Your task to perform on an android device: delete the emails in spam in the gmail app Image 0: 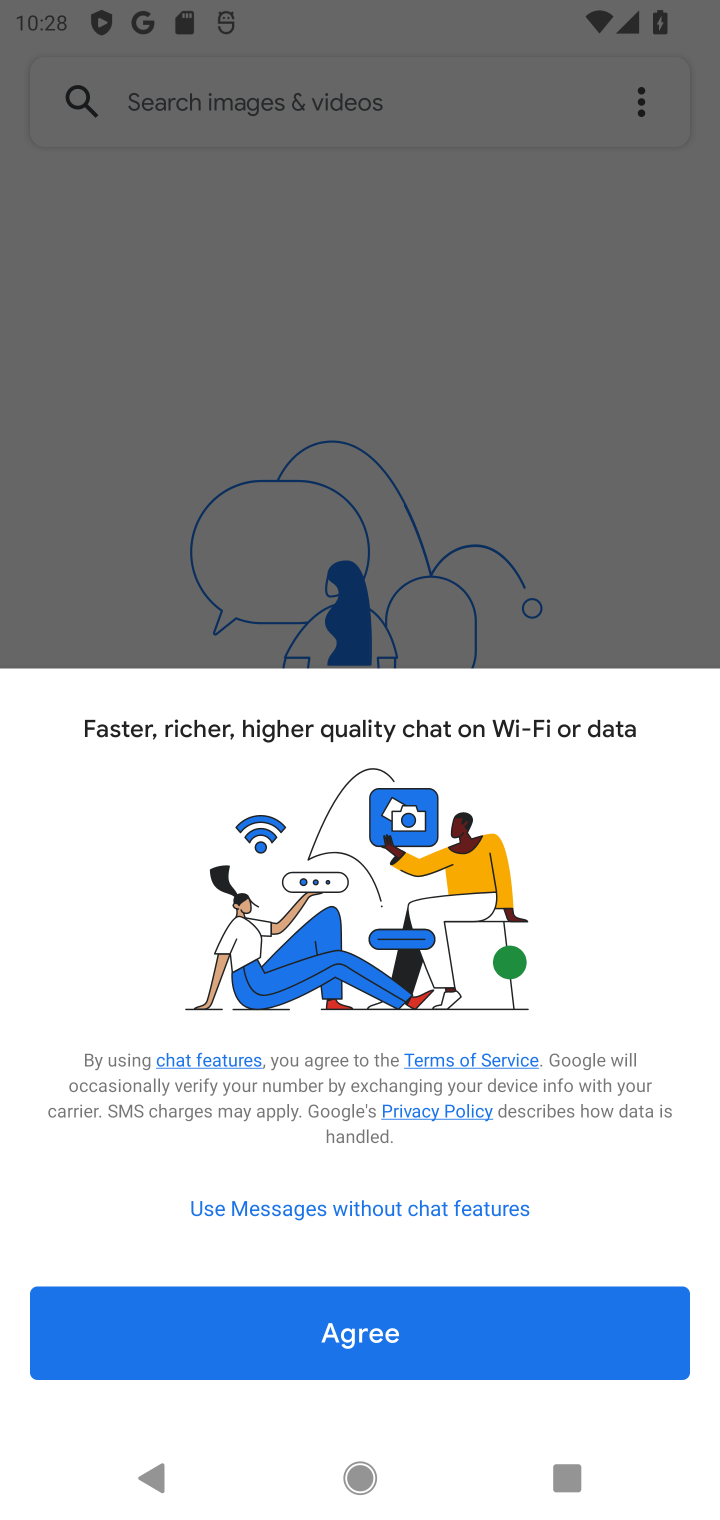
Step 0: press home button
Your task to perform on an android device: delete the emails in spam in the gmail app Image 1: 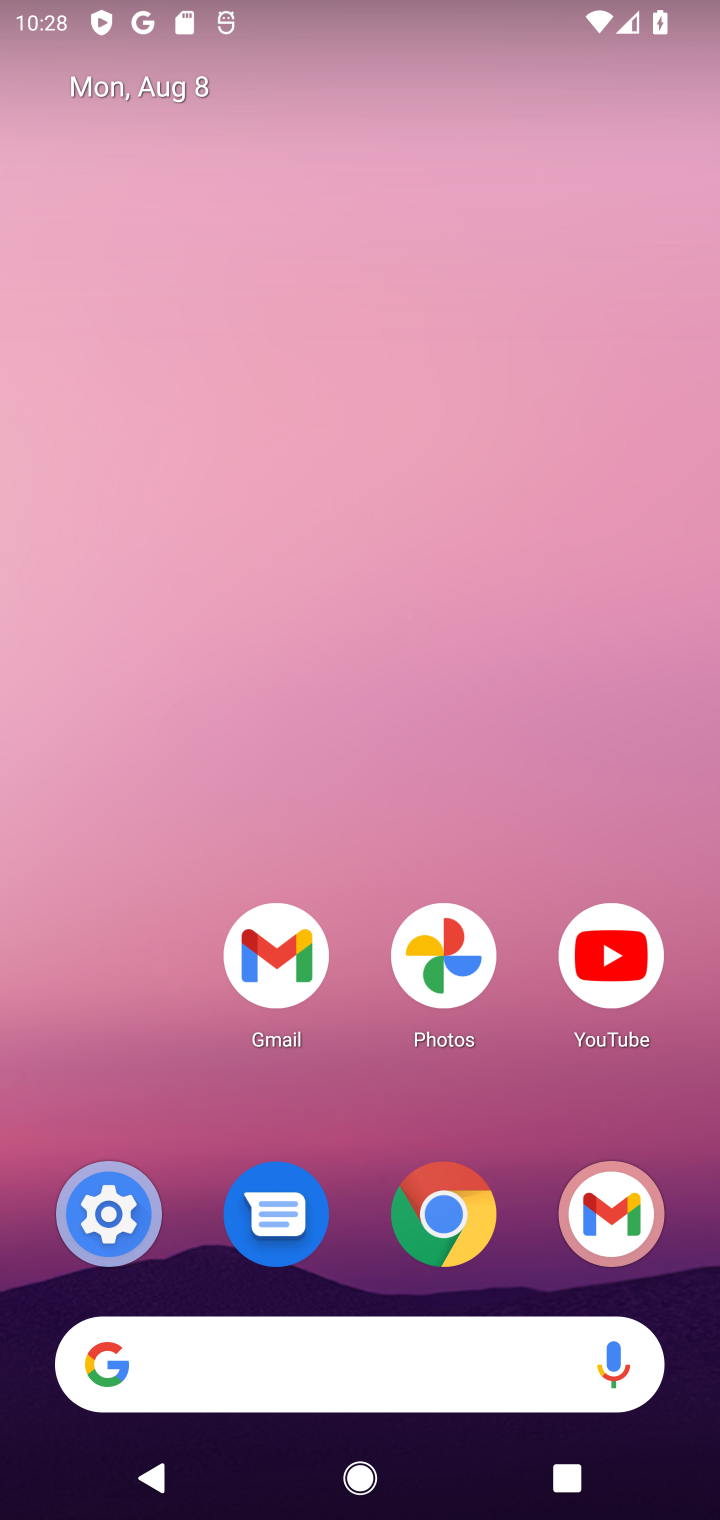
Step 1: click (251, 998)
Your task to perform on an android device: delete the emails in spam in the gmail app Image 2: 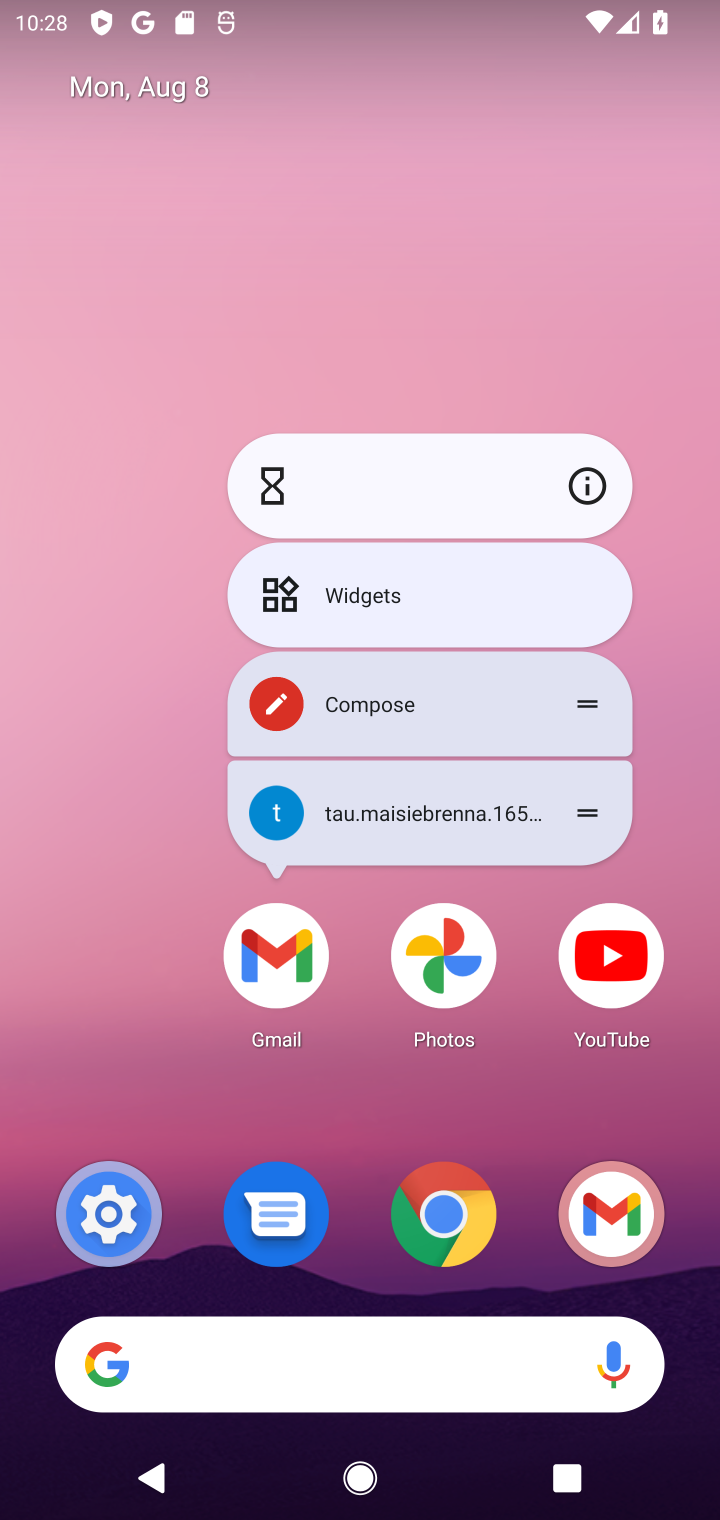
Step 2: click (258, 978)
Your task to perform on an android device: delete the emails in spam in the gmail app Image 3: 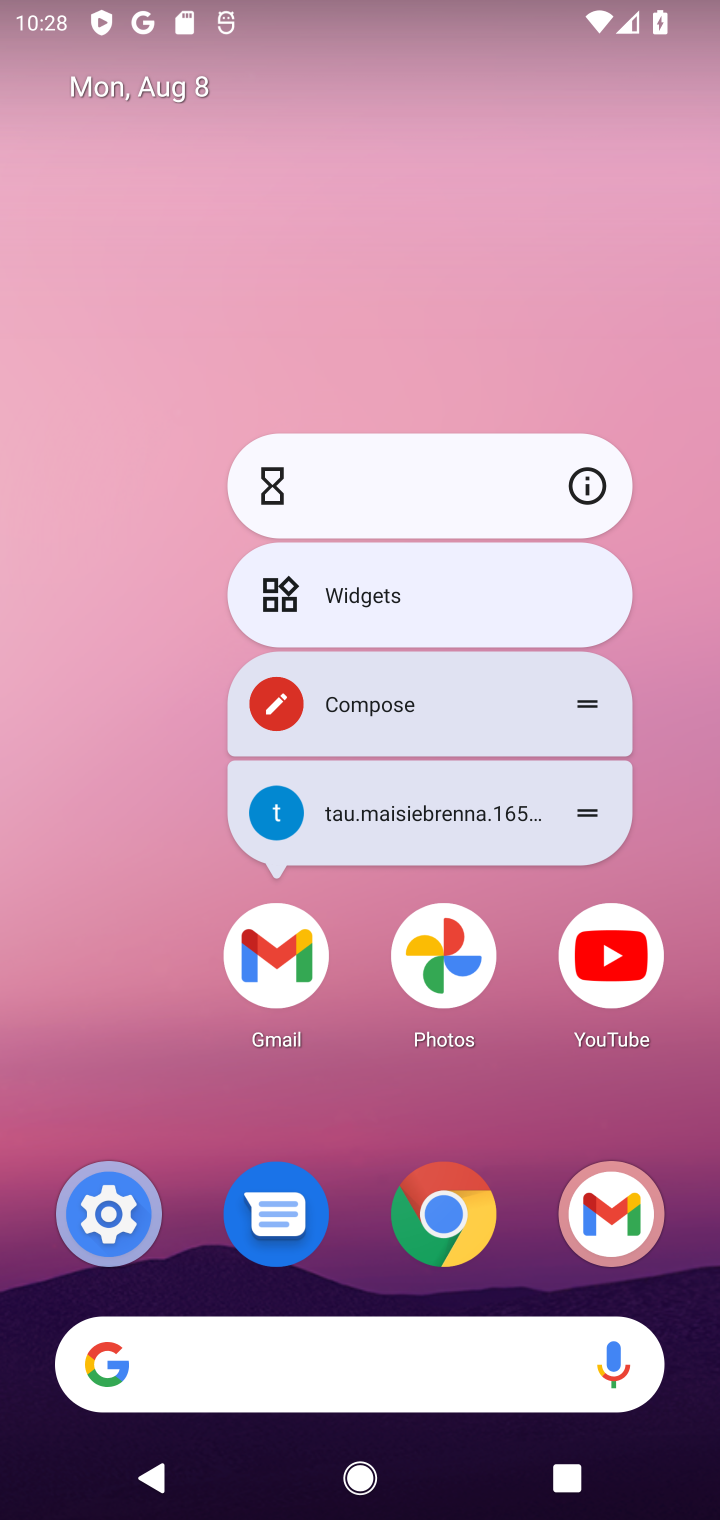
Step 3: click (258, 978)
Your task to perform on an android device: delete the emails in spam in the gmail app Image 4: 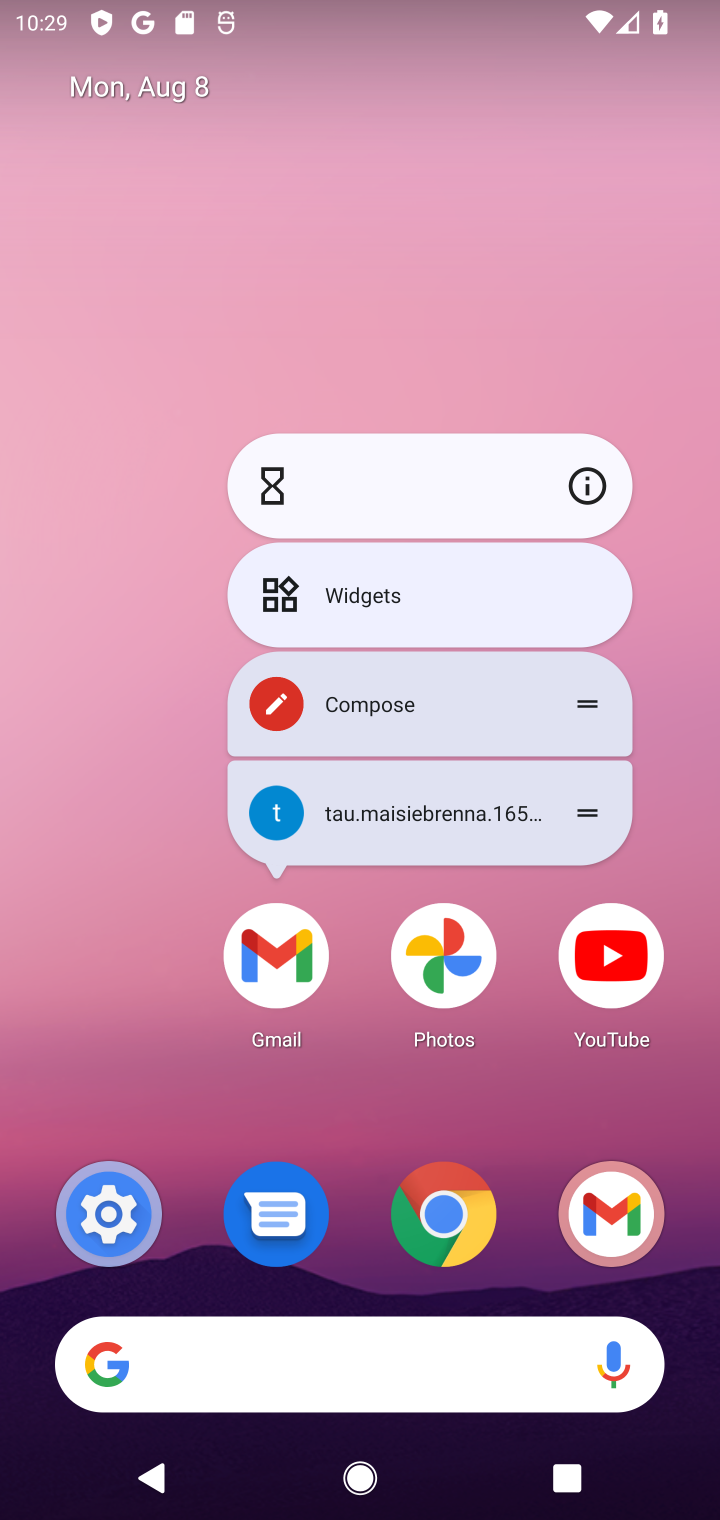
Step 4: task complete